Your task to perform on an android device: check battery use Image 0: 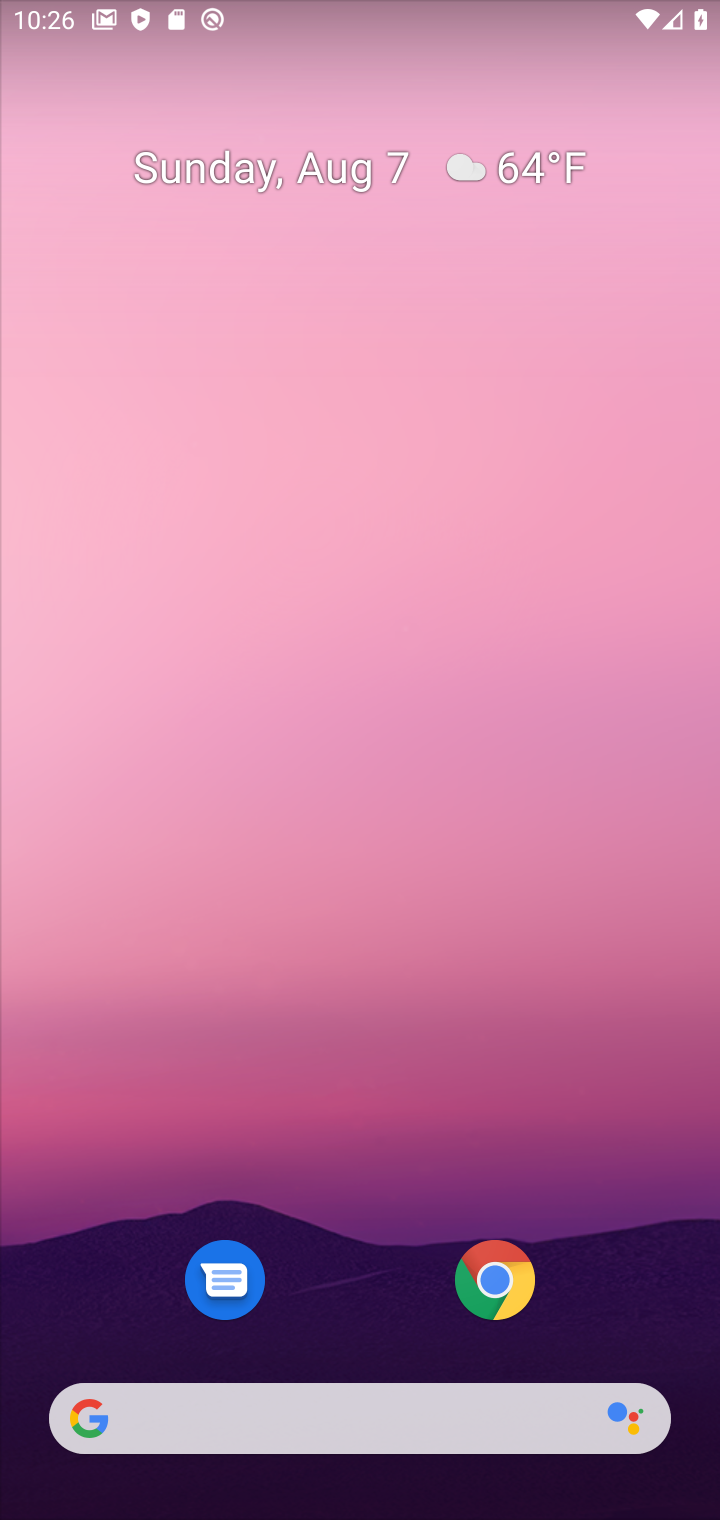
Step 0: drag from (366, 1236) to (343, 106)
Your task to perform on an android device: check battery use Image 1: 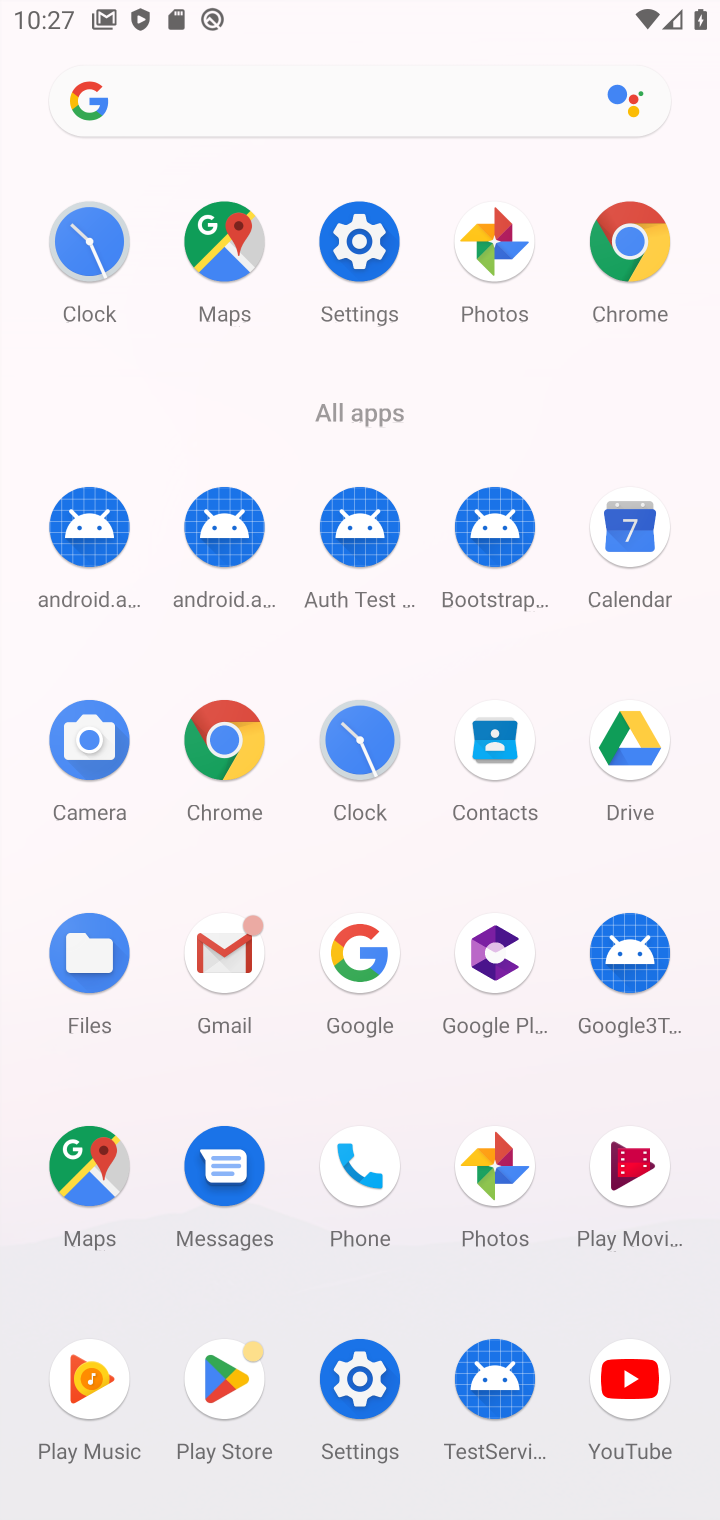
Step 1: click (346, 235)
Your task to perform on an android device: check battery use Image 2: 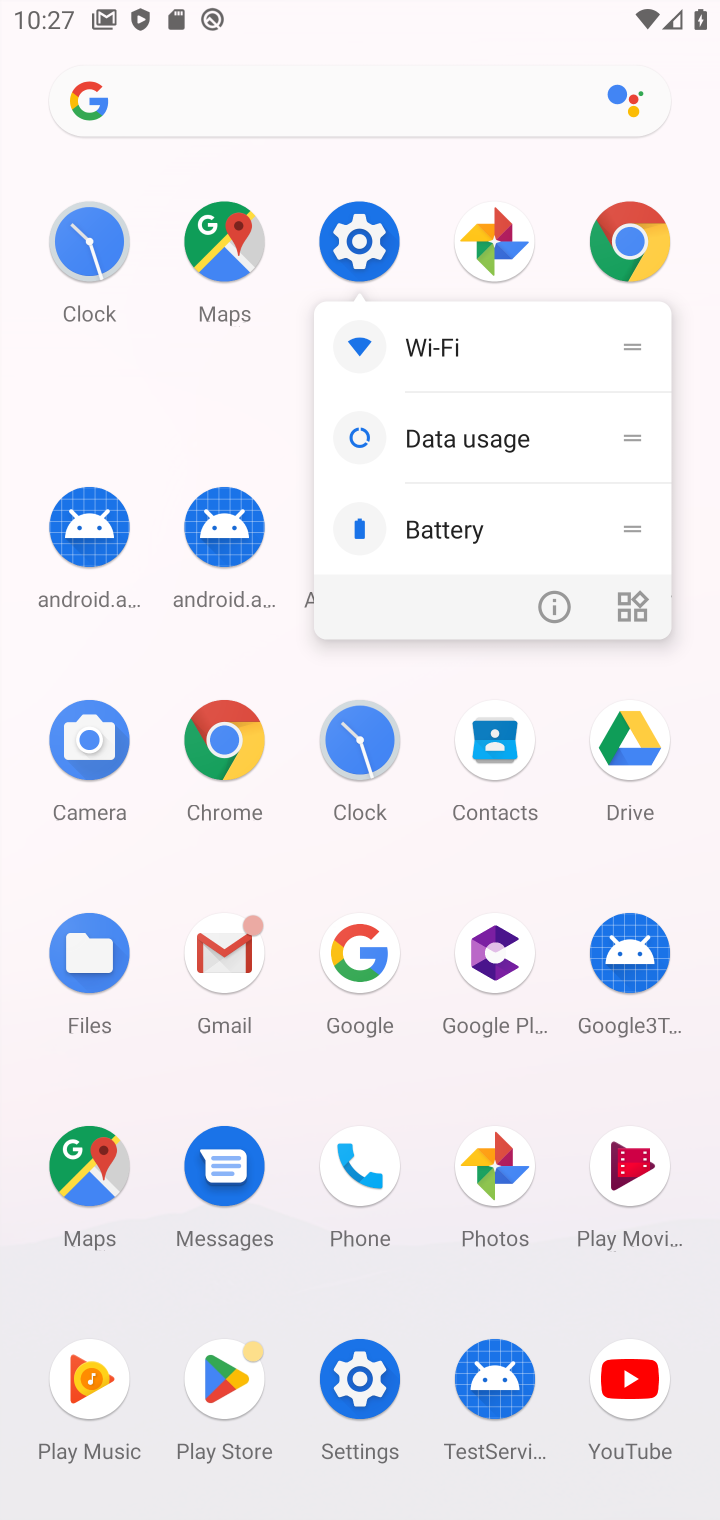
Step 2: click (369, 229)
Your task to perform on an android device: check battery use Image 3: 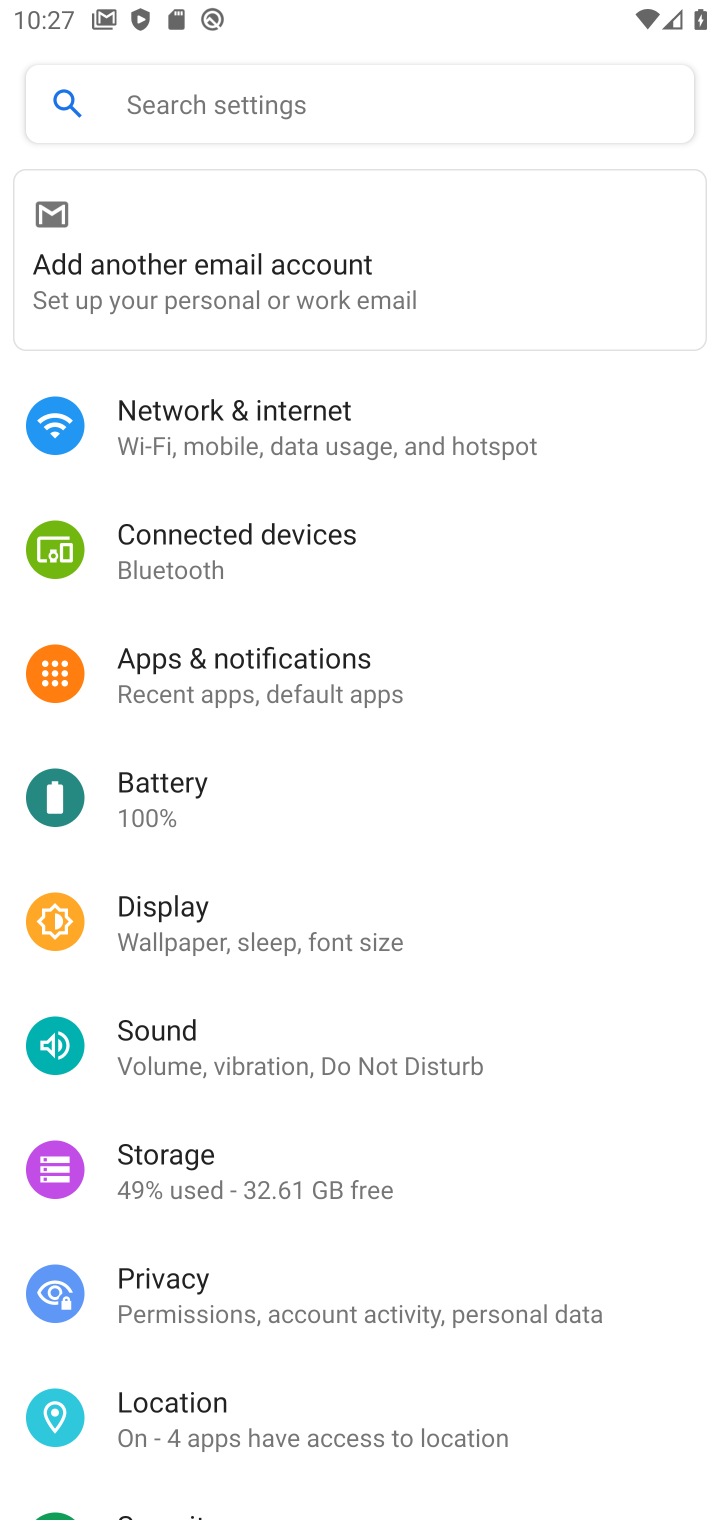
Step 3: click (185, 803)
Your task to perform on an android device: check battery use Image 4: 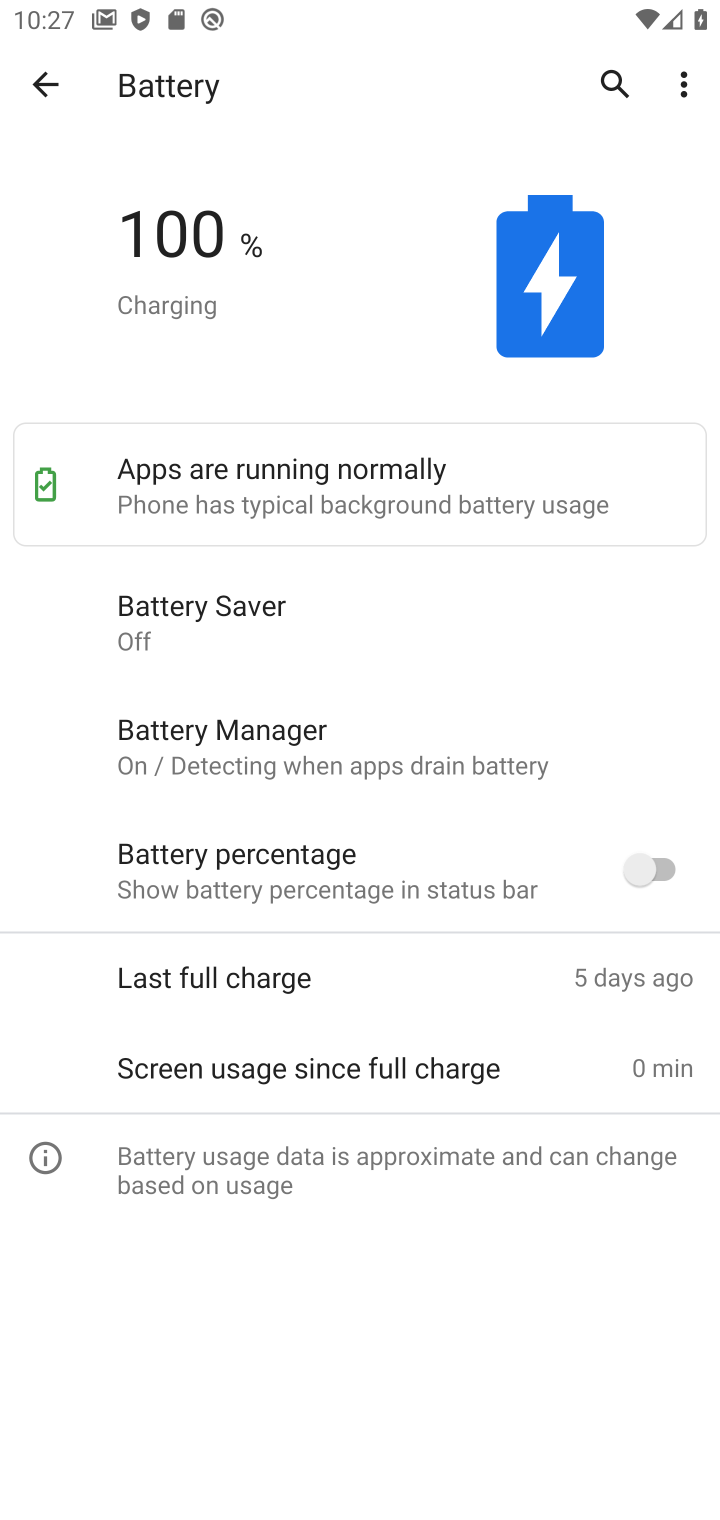
Step 4: click (689, 93)
Your task to perform on an android device: check battery use Image 5: 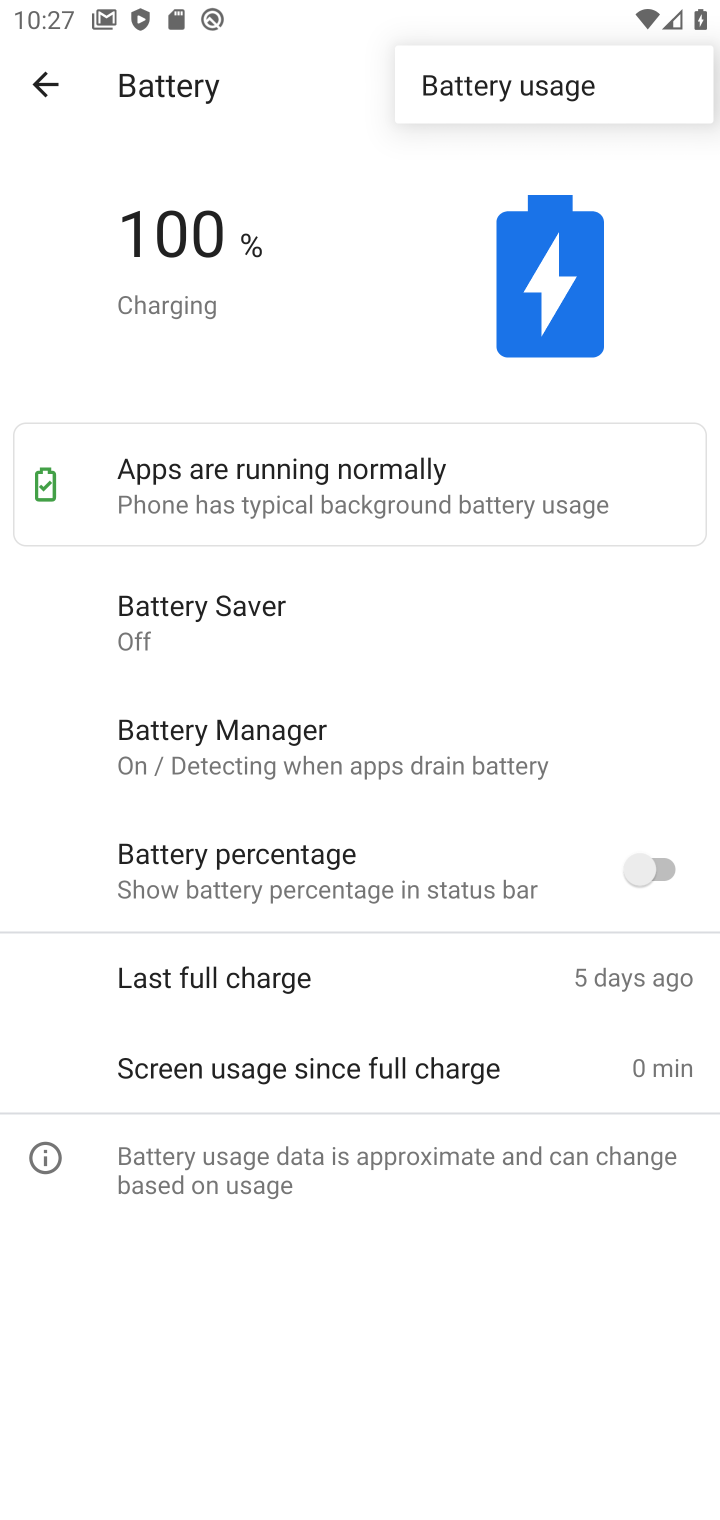
Step 5: click (458, 68)
Your task to perform on an android device: check battery use Image 6: 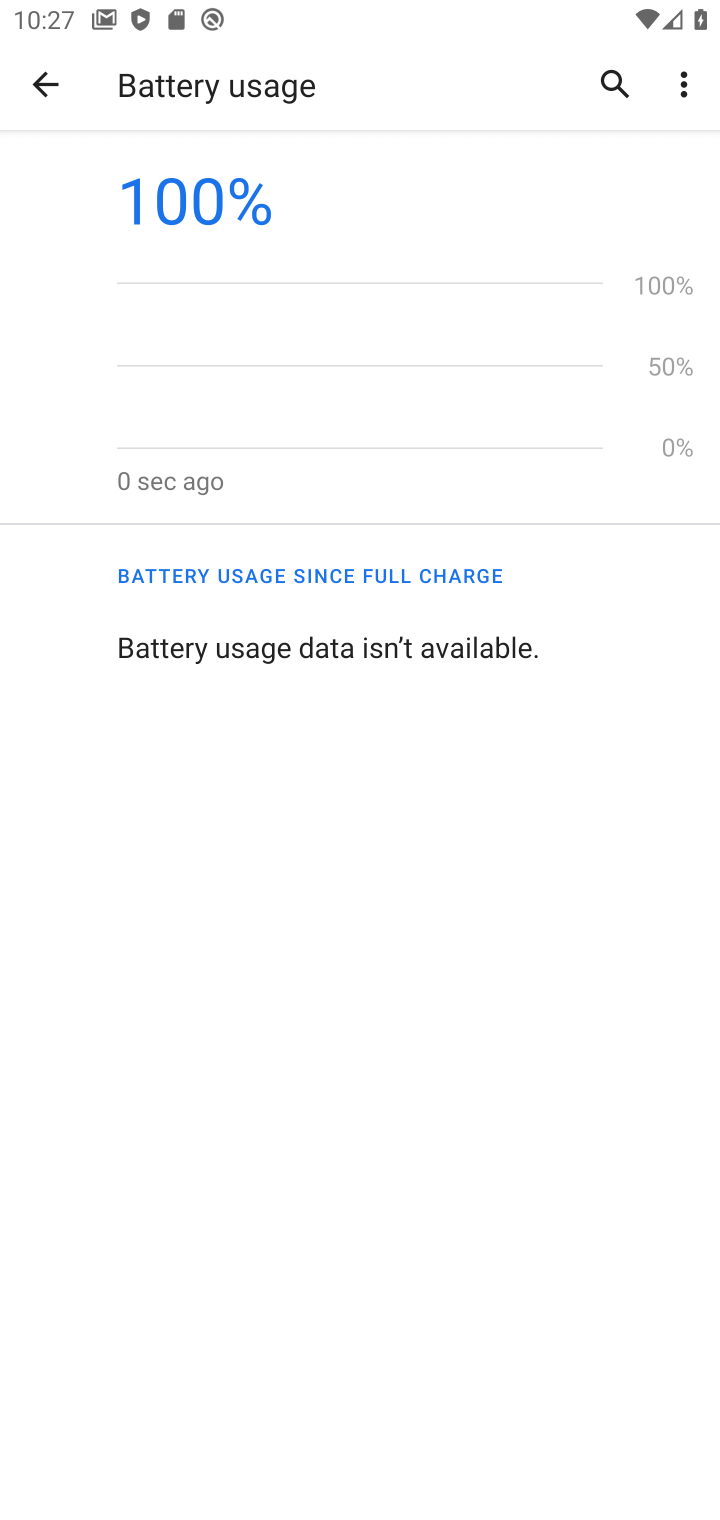
Step 6: task complete